Your task to perform on an android device: What's the weather going to be this weekend? Image 0: 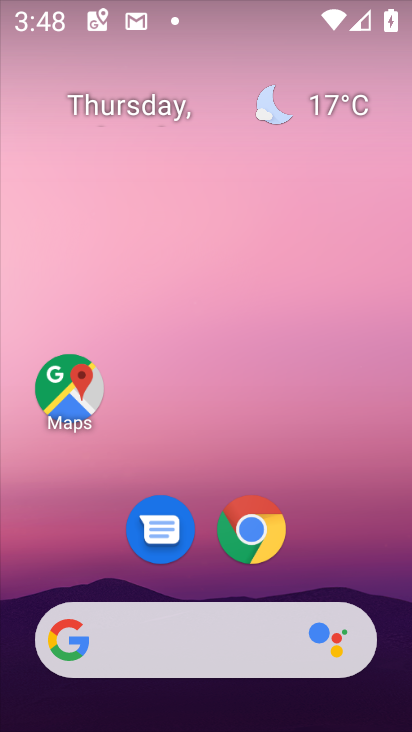
Step 0: drag from (165, 506) to (201, 56)
Your task to perform on an android device: What's the weather going to be this weekend? Image 1: 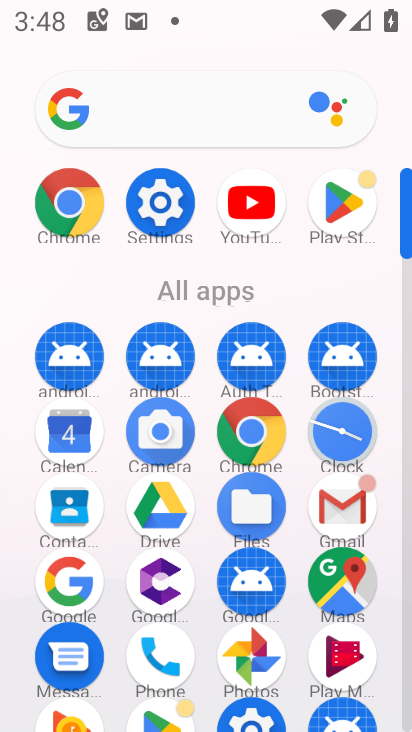
Step 1: click (63, 590)
Your task to perform on an android device: What's the weather going to be this weekend? Image 2: 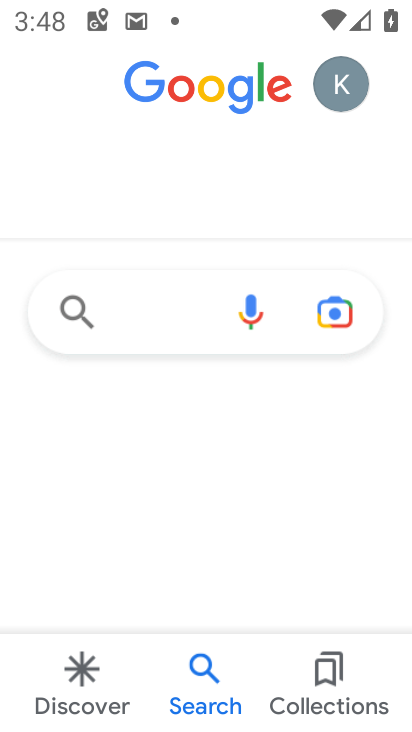
Step 2: click (157, 317)
Your task to perform on an android device: What's the weather going to be this weekend? Image 3: 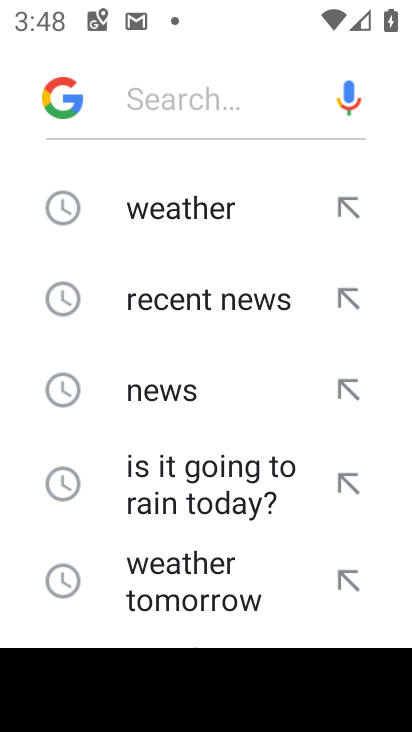
Step 3: drag from (185, 577) to (170, 271)
Your task to perform on an android device: What's the weather going to be this weekend? Image 4: 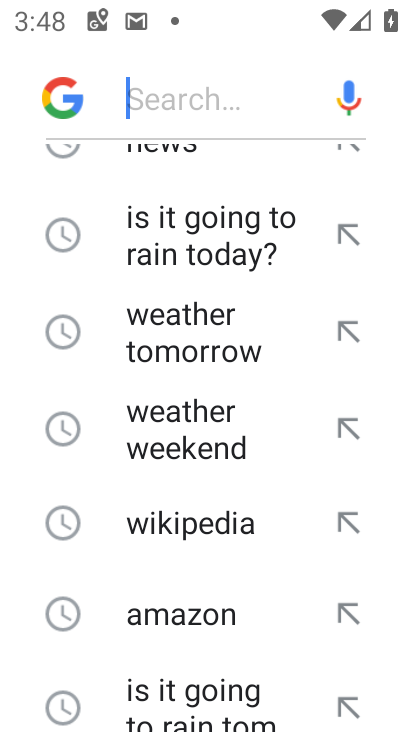
Step 4: click (193, 438)
Your task to perform on an android device: What's the weather going to be this weekend? Image 5: 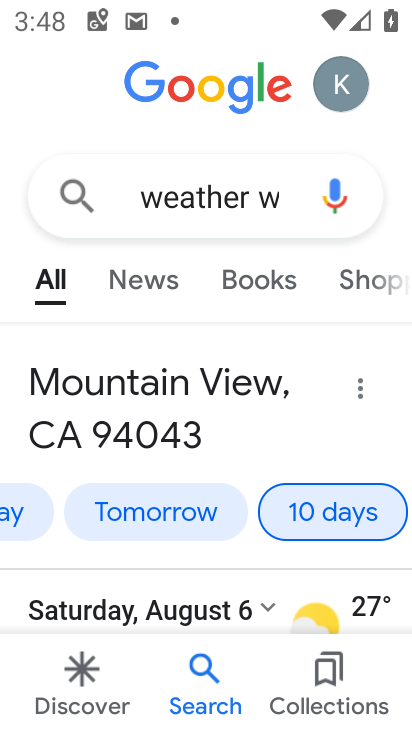
Step 5: drag from (202, 528) to (184, 216)
Your task to perform on an android device: What's the weather going to be this weekend? Image 6: 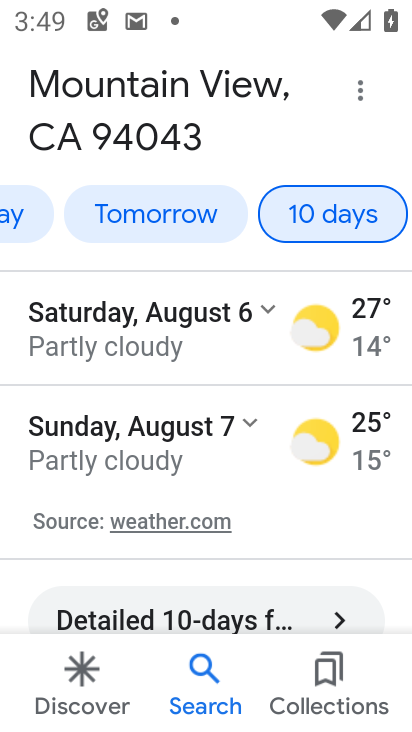
Step 6: drag from (229, 564) to (229, 254)
Your task to perform on an android device: What's the weather going to be this weekend? Image 7: 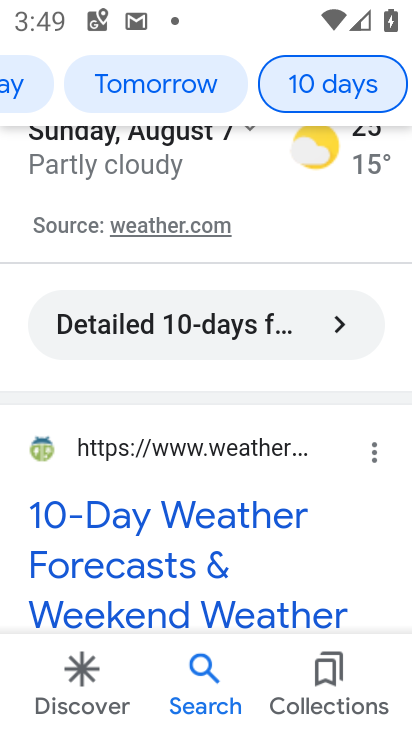
Step 7: click (178, 328)
Your task to perform on an android device: What's the weather going to be this weekend? Image 8: 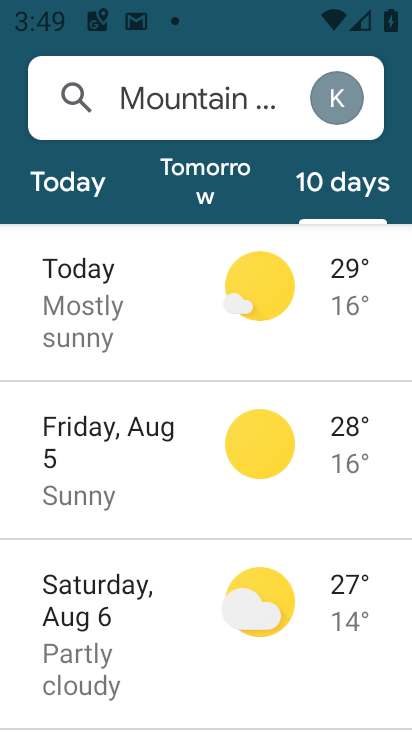
Step 8: task complete